Your task to perform on an android device: Open my contact list Image 0: 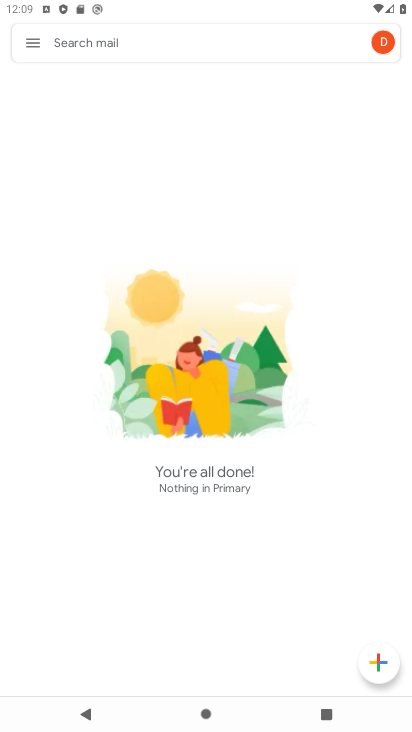
Step 0: press home button
Your task to perform on an android device: Open my contact list Image 1: 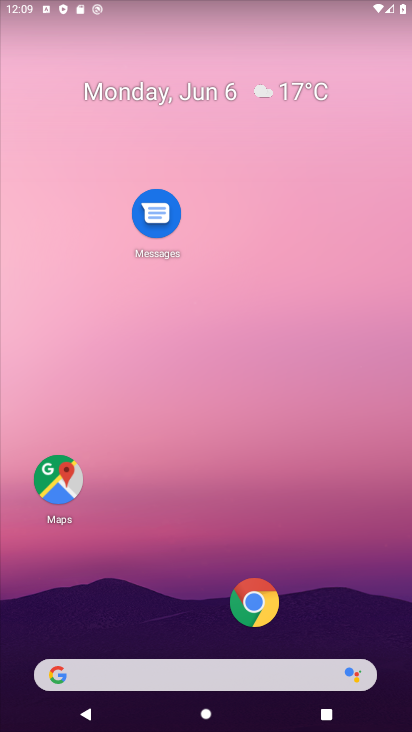
Step 1: drag from (365, 558) to (263, 44)
Your task to perform on an android device: Open my contact list Image 2: 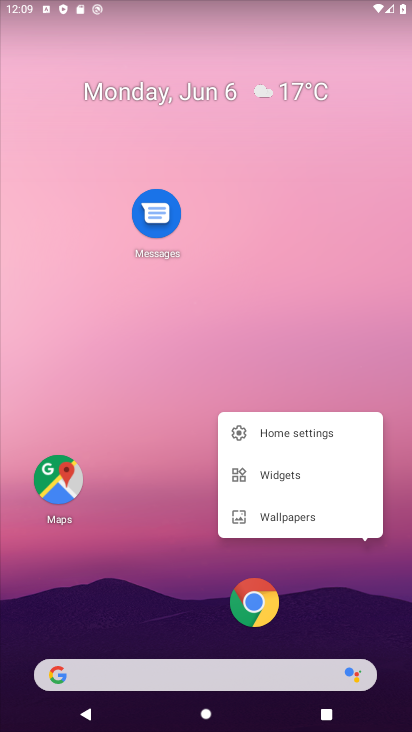
Step 2: click (136, 362)
Your task to perform on an android device: Open my contact list Image 3: 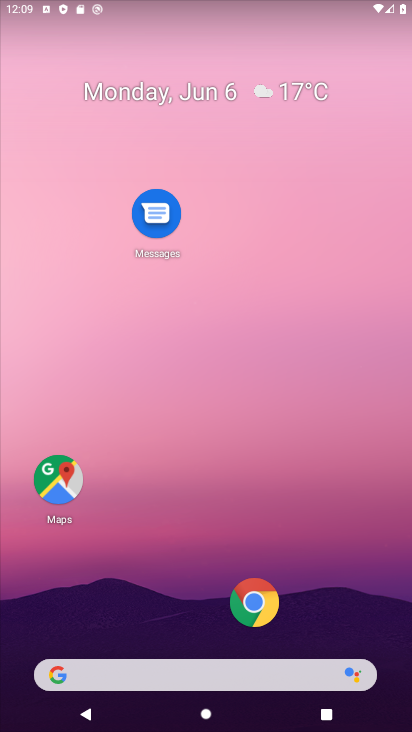
Step 3: drag from (340, 552) to (306, 190)
Your task to perform on an android device: Open my contact list Image 4: 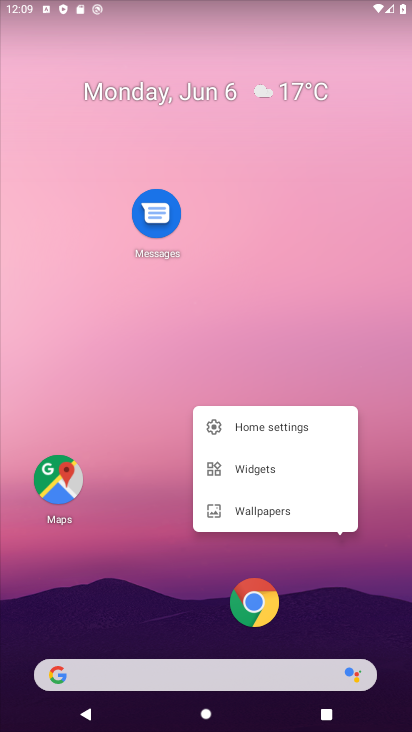
Step 4: click (286, 255)
Your task to perform on an android device: Open my contact list Image 5: 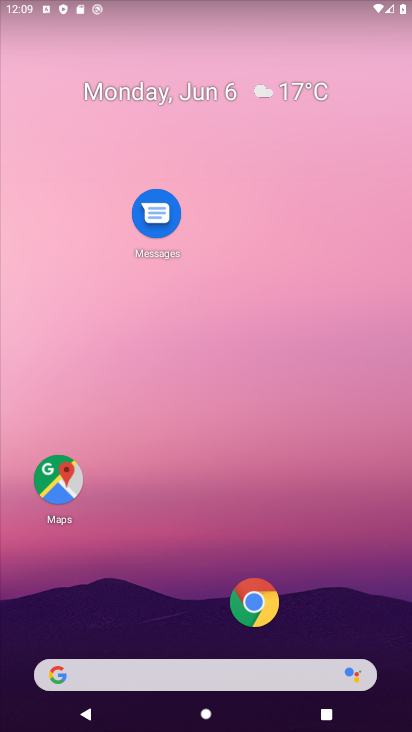
Step 5: drag from (332, 544) to (304, 342)
Your task to perform on an android device: Open my contact list Image 6: 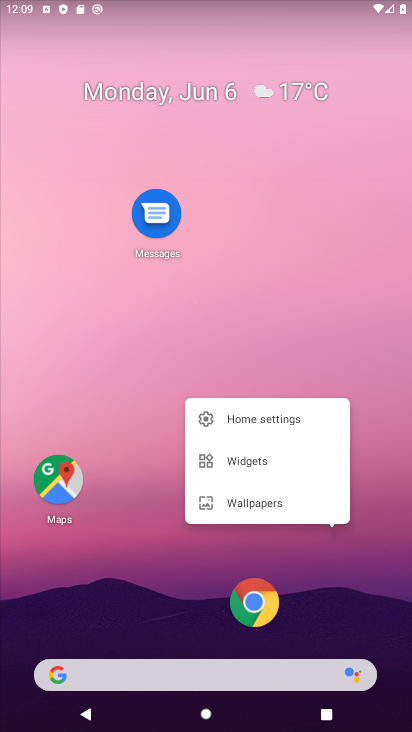
Step 6: click (312, 353)
Your task to perform on an android device: Open my contact list Image 7: 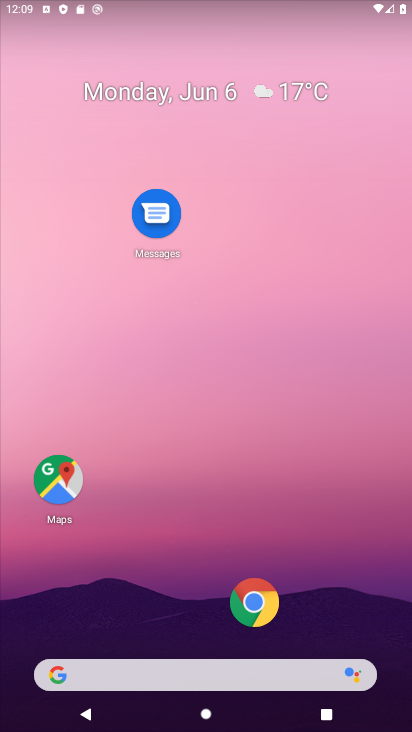
Step 7: drag from (154, 617) to (154, 303)
Your task to perform on an android device: Open my contact list Image 8: 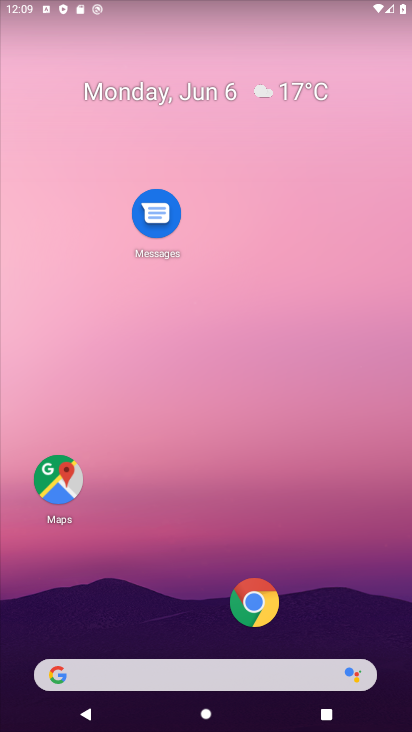
Step 8: drag from (173, 611) to (185, 7)
Your task to perform on an android device: Open my contact list Image 9: 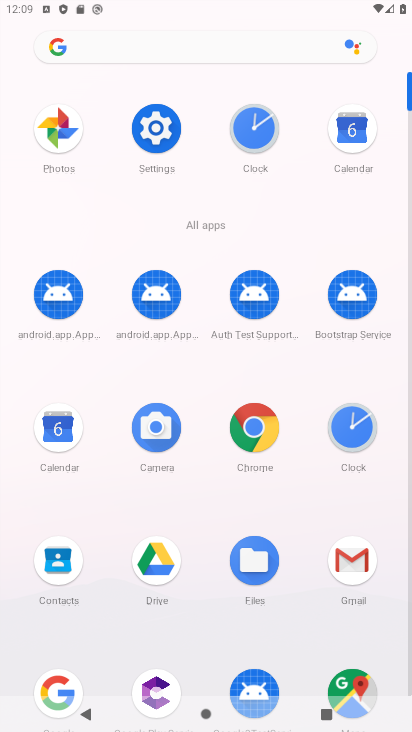
Step 9: click (167, 128)
Your task to perform on an android device: Open my contact list Image 10: 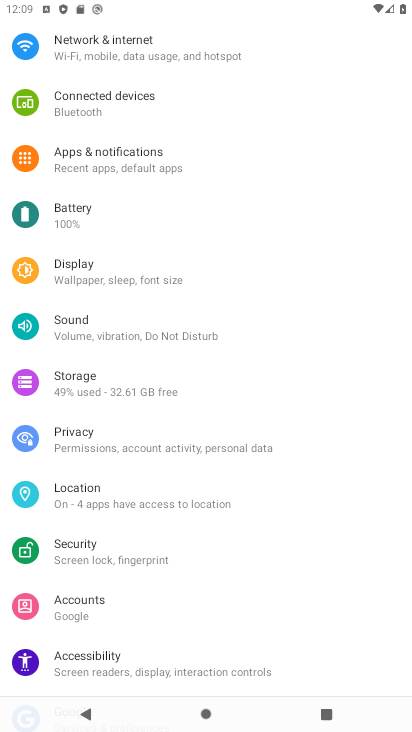
Step 10: press home button
Your task to perform on an android device: Open my contact list Image 11: 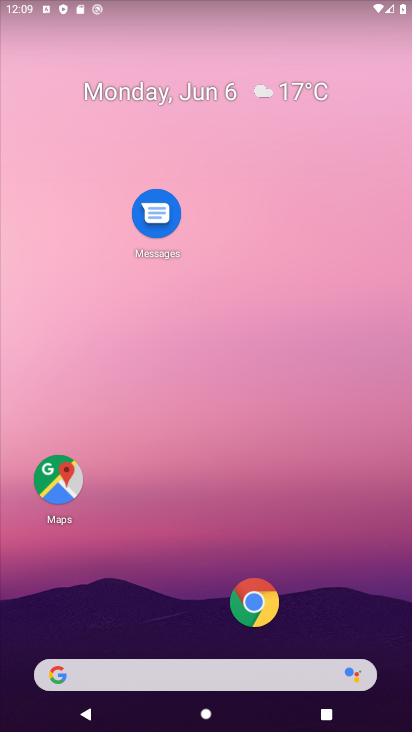
Step 11: drag from (340, 622) to (324, 153)
Your task to perform on an android device: Open my contact list Image 12: 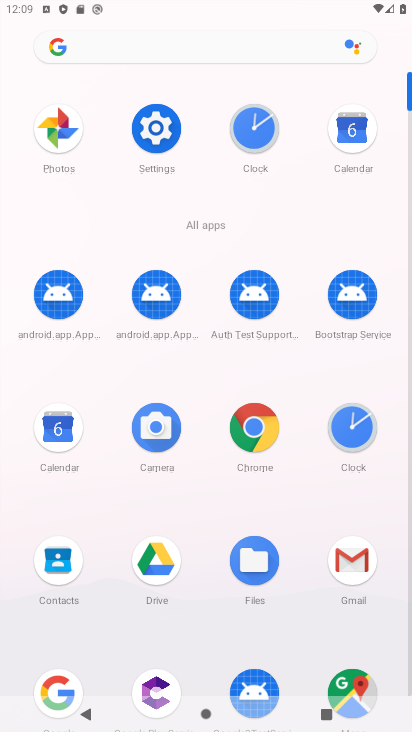
Step 12: click (43, 579)
Your task to perform on an android device: Open my contact list Image 13: 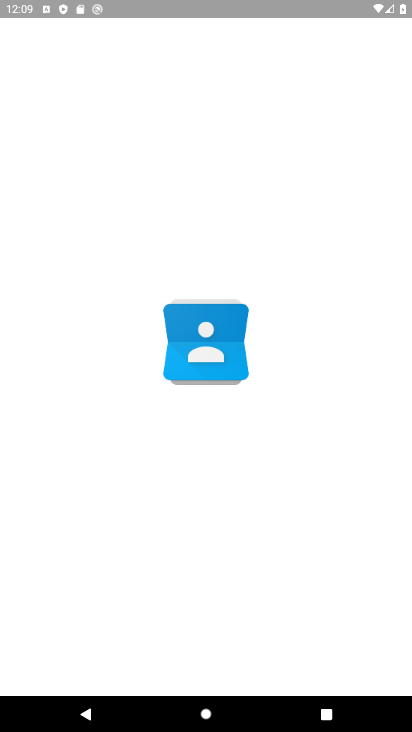
Step 13: task complete